Your task to perform on an android device: turn on improve location accuracy Image 0: 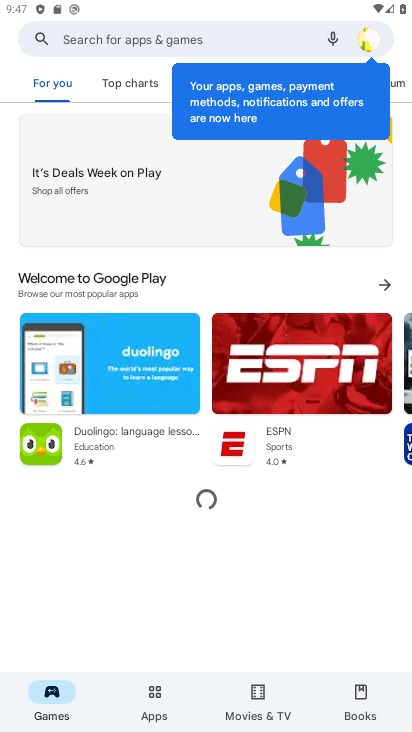
Step 0: press home button
Your task to perform on an android device: turn on improve location accuracy Image 1: 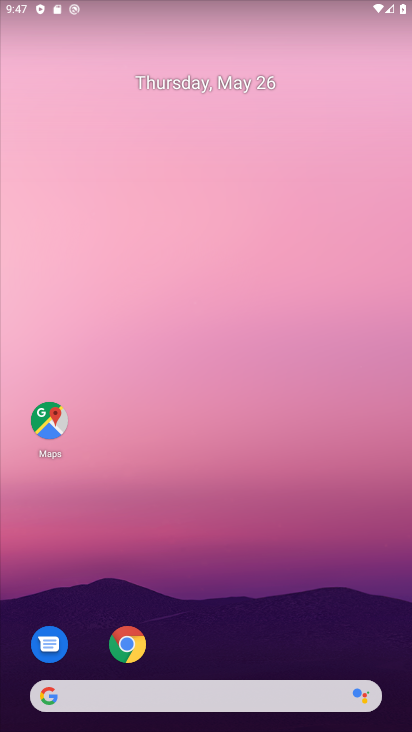
Step 1: drag from (370, 650) to (386, 160)
Your task to perform on an android device: turn on improve location accuracy Image 2: 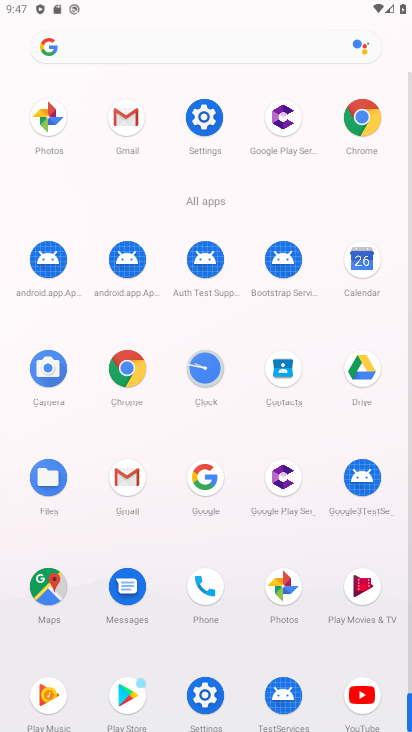
Step 2: click (191, 135)
Your task to perform on an android device: turn on improve location accuracy Image 3: 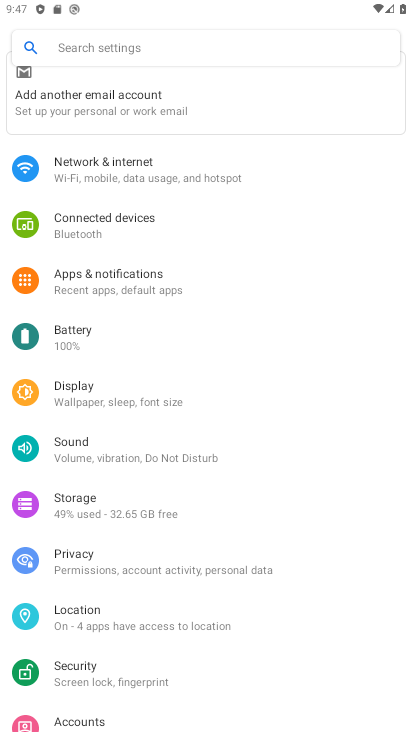
Step 3: drag from (305, 528) to (326, 416)
Your task to perform on an android device: turn on improve location accuracy Image 4: 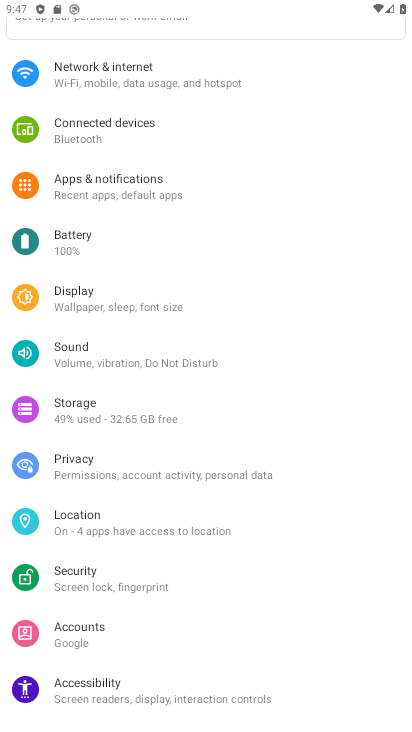
Step 4: drag from (321, 555) to (339, 418)
Your task to perform on an android device: turn on improve location accuracy Image 5: 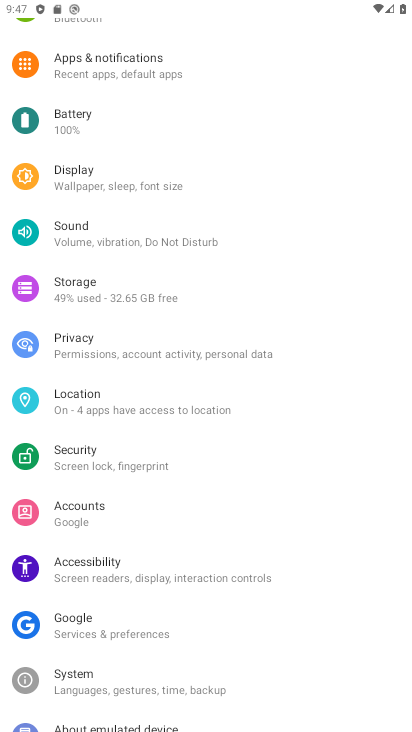
Step 5: drag from (297, 589) to (312, 433)
Your task to perform on an android device: turn on improve location accuracy Image 6: 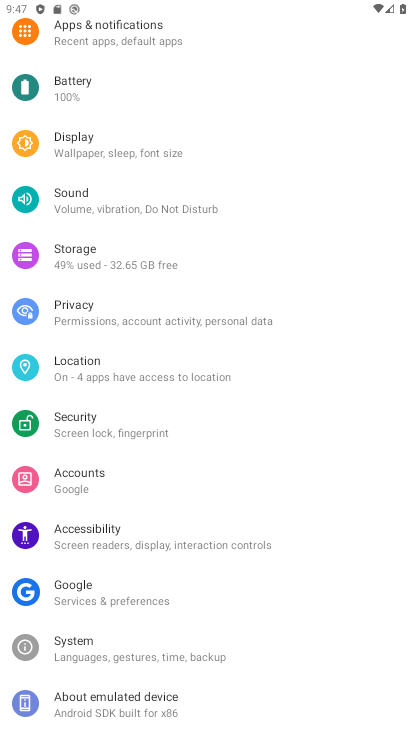
Step 6: drag from (315, 293) to (309, 414)
Your task to perform on an android device: turn on improve location accuracy Image 7: 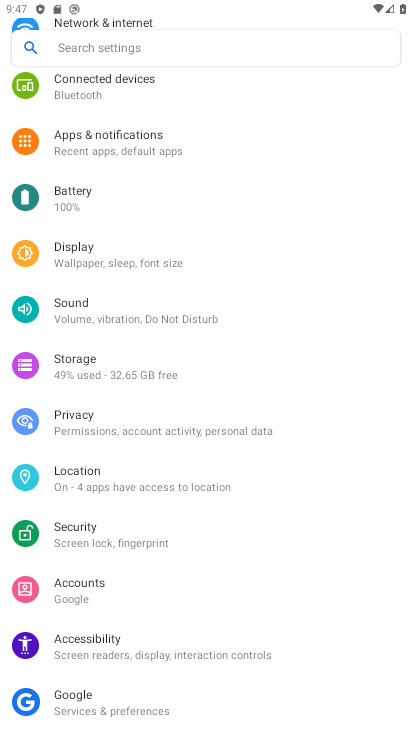
Step 7: drag from (309, 280) to (331, 580)
Your task to perform on an android device: turn on improve location accuracy Image 8: 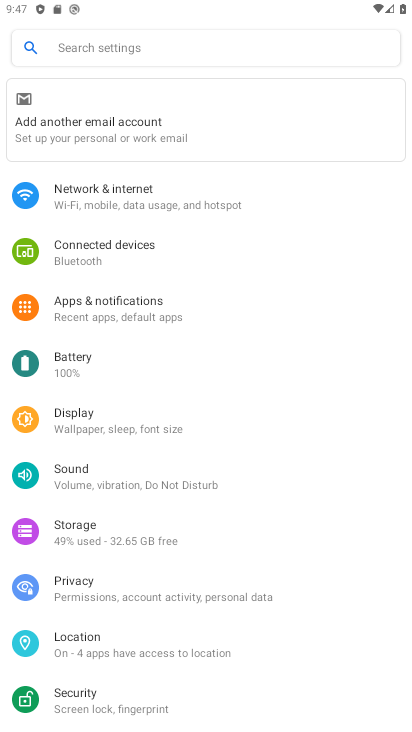
Step 8: click (232, 654)
Your task to perform on an android device: turn on improve location accuracy Image 9: 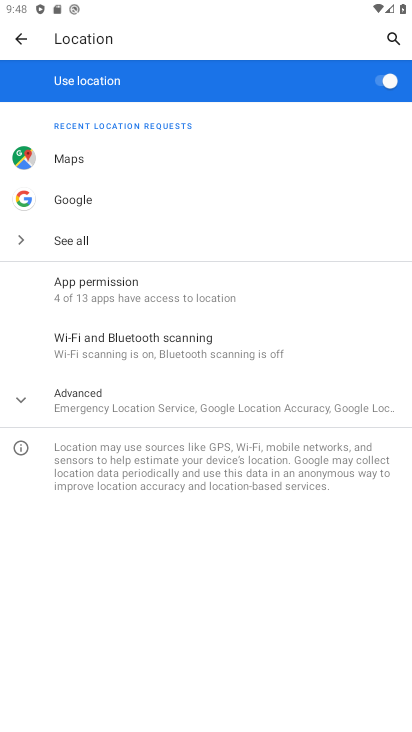
Step 9: click (243, 425)
Your task to perform on an android device: turn on improve location accuracy Image 10: 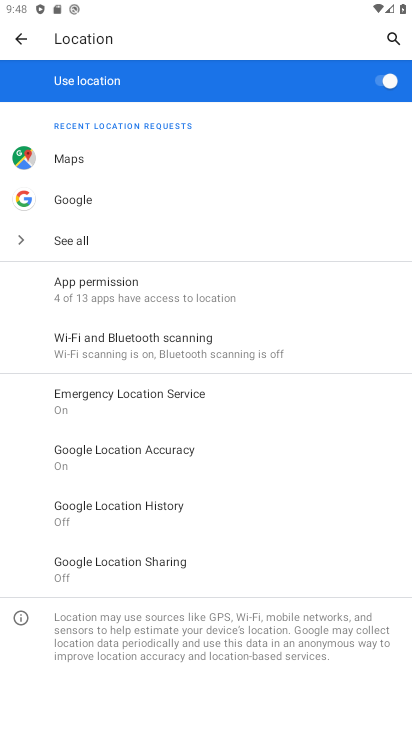
Step 10: click (187, 466)
Your task to perform on an android device: turn on improve location accuracy Image 11: 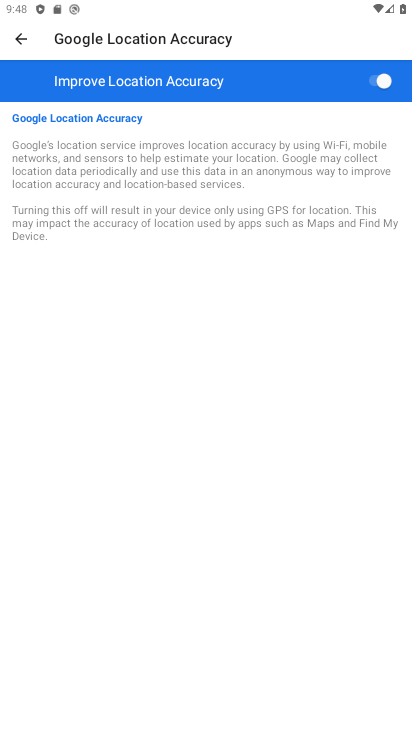
Step 11: task complete